Your task to perform on an android device: Go to Google Image 0: 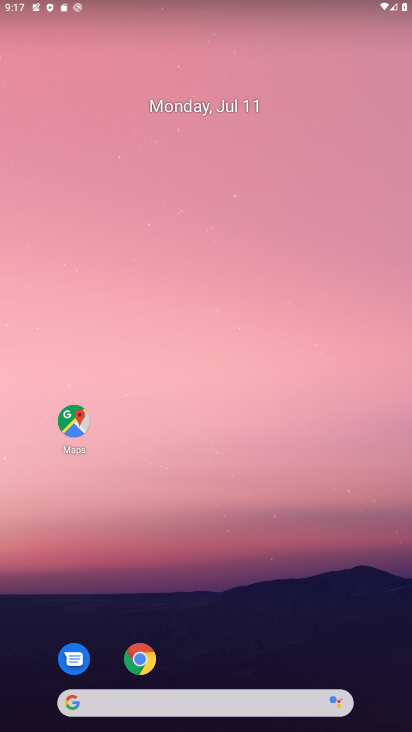
Step 0: drag from (207, 729) to (205, 0)
Your task to perform on an android device: Go to Google Image 1: 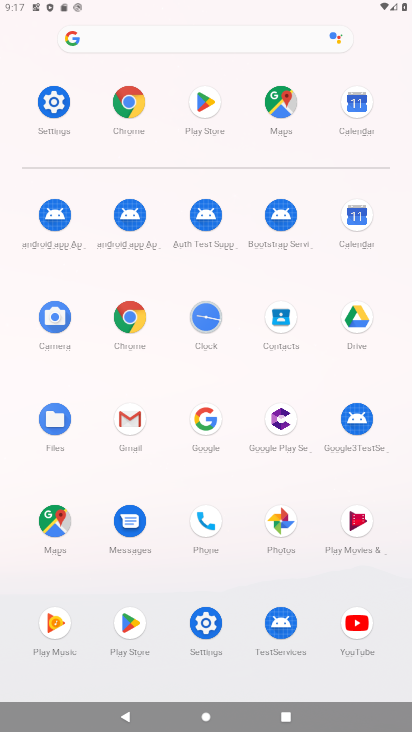
Step 1: click (202, 421)
Your task to perform on an android device: Go to Google Image 2: 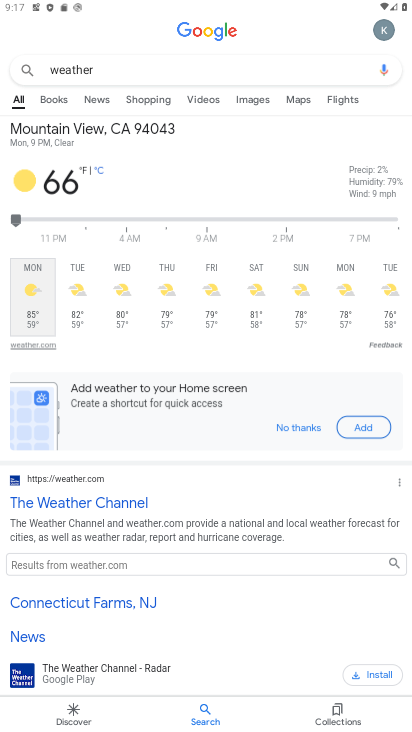
Step 2: task complete